Your task to perform on an android device: Clear all items from cart on bestbuy.com. Add "amazon basics triple a" to the cart on bestbuy.com, then select checkout. Image 0: 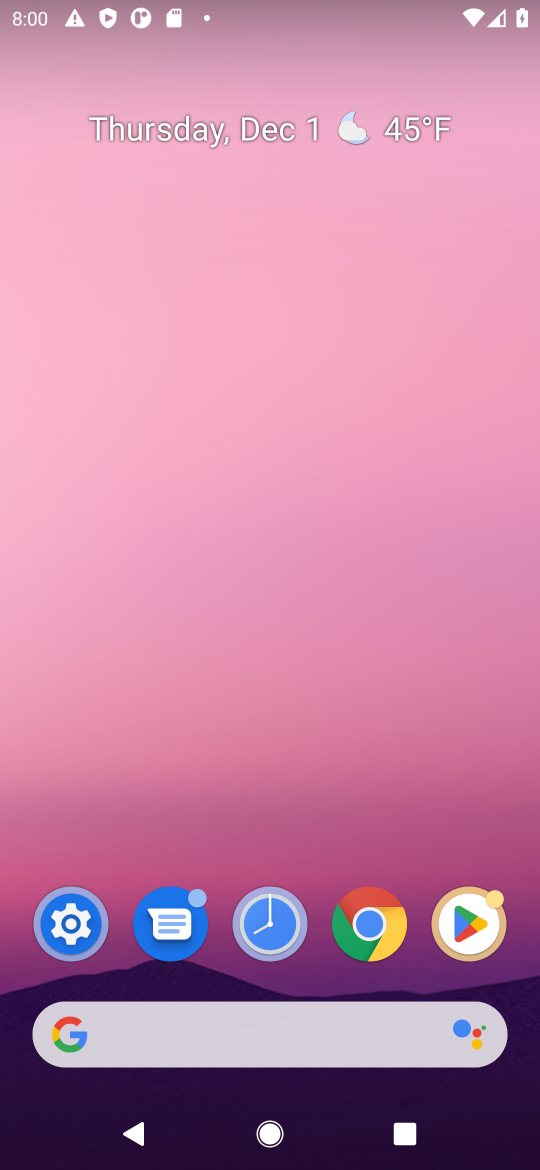
Step 0: click (290, 1018)
Your task to perform on an android device: Clear all items from cart on bestbuy.com. Add "amazon basics triple a" to the cart on bestbuy.com, then select checkout. Image 1: 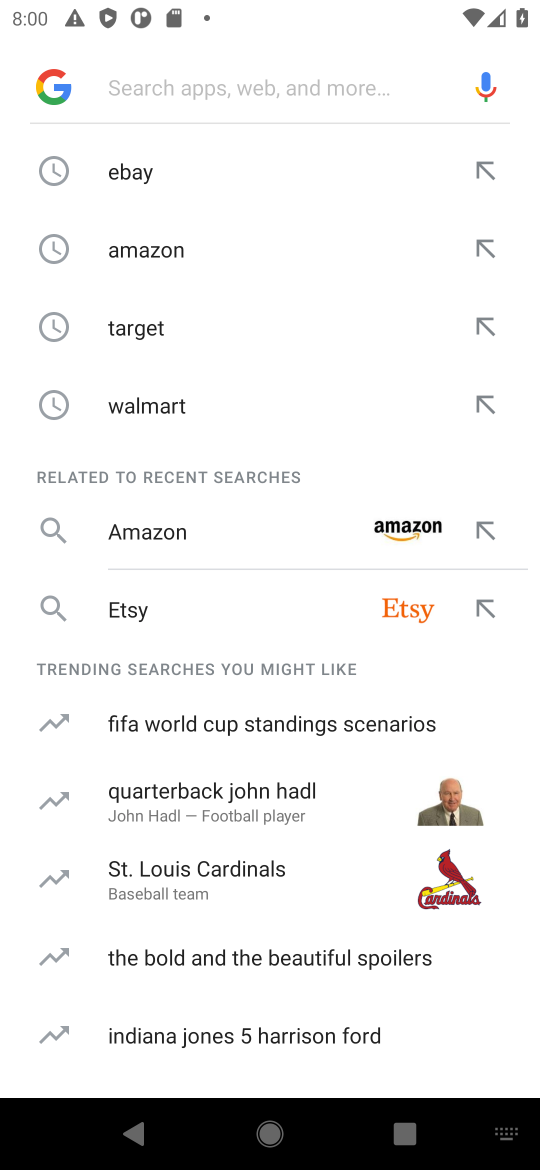
Step 1: type "bestbuy"
Your task to perform on an android device: Clear all items from cart on bestbuy.com. Add "amazon basics triple a" to the cart on bestbuy.com, then select checkout. Image 2: 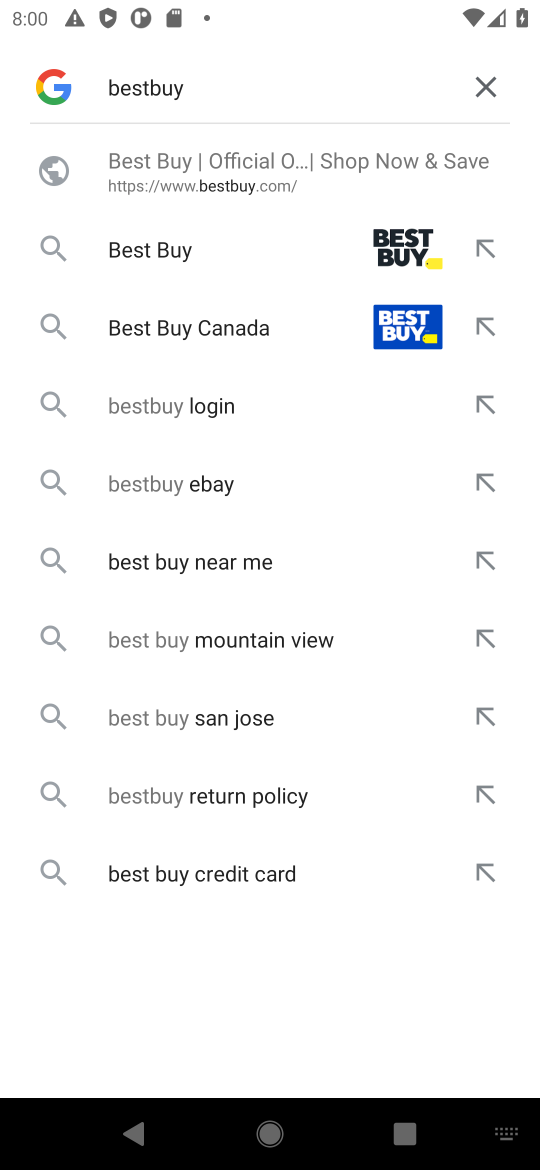
Step 2: click (234, 259)
Your task to perform on an android device: Clear all items from cart on bestbuy.com. Add "amazon basics triple a" to the cart on bestbuy.com, then select checkout. Image 3: 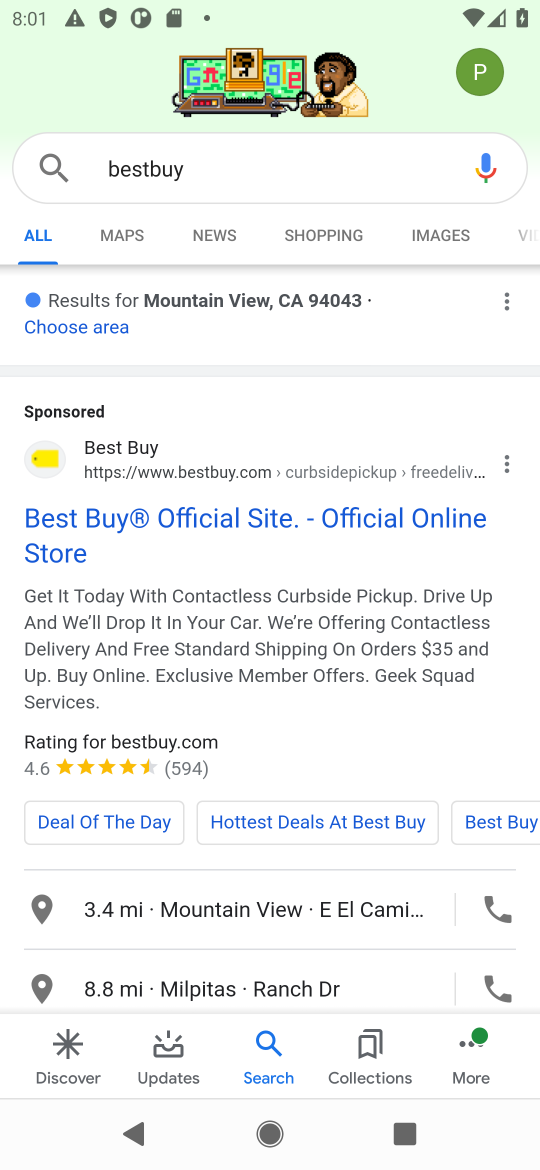
Step 3: click (104, 496)
Your task to perform on an android device: Clear all items from cart on bestbuy.com. Add "amazon basics triple a" to the cart on bestbuy.com, then select checkout. Image 4: 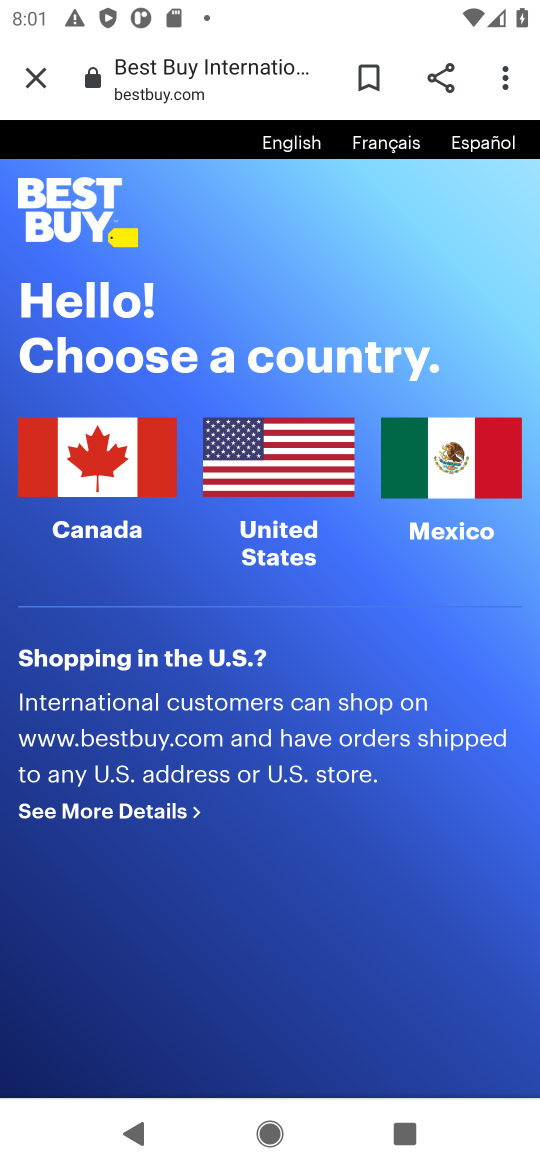
Step 4: click (100, 529)
Your task to perform on an android device: Clear all items from cart on bestbuy.com. Add "amazon basics triple a" to the cart on bestbuy.com, then select checkout. Image 5: 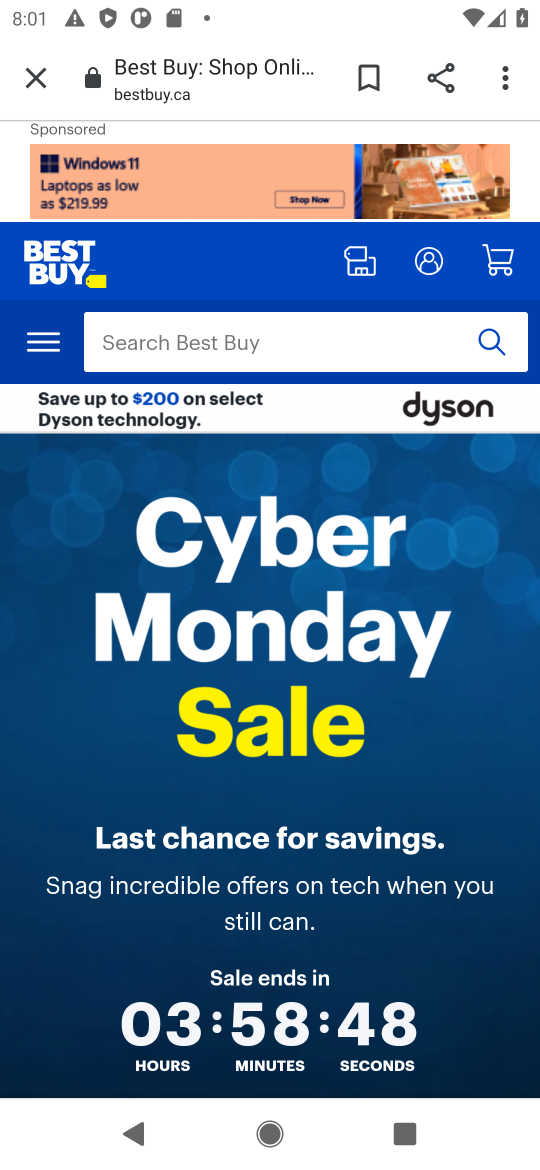
Step 5: click (218, 333)
Your task to perform on an android device: Clear all items from cart on bestbuy.com. Add "amazon basics triple a" to the cart on bestbuy.com, then select checkout. Image 6: 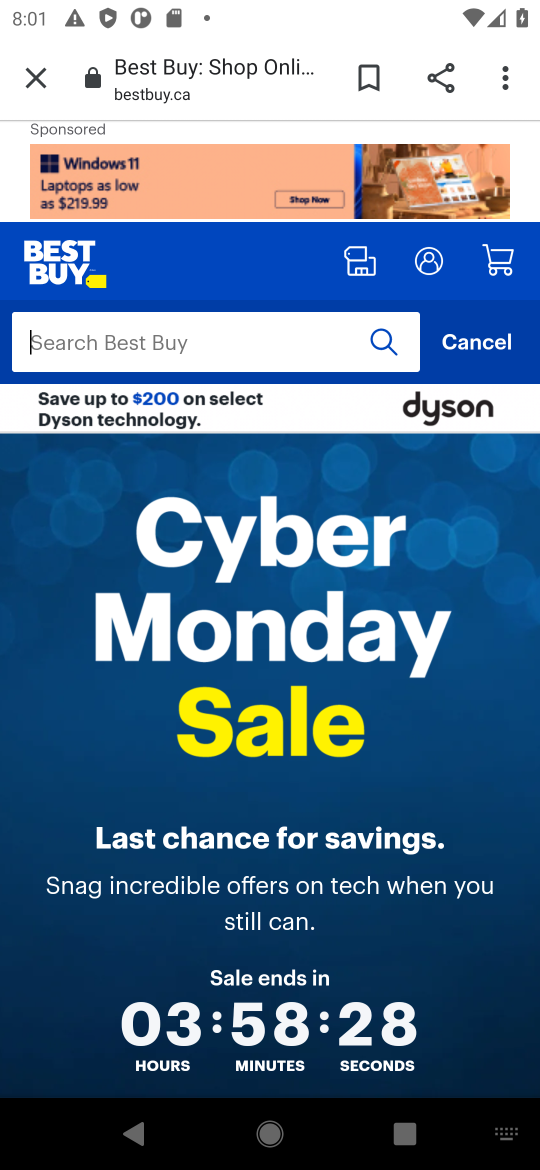
Step 6: type "amazon basic triple a"
Your task to perform on an android device: Clear all items from cart on bestbuy.com. Add "amazon basics triple a" to the cart on bestbuy.com, then select checkout. Image 7: 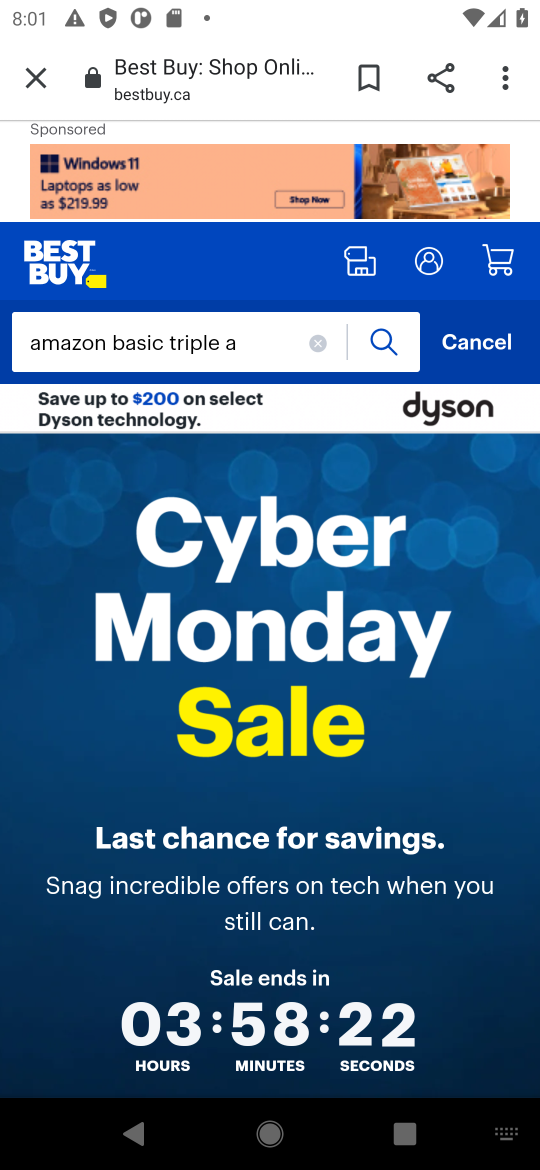
Step 7: click (374, 353)
Your task to perform on an android device: Clear all items from cart on bestbuy.com. Add "amazon basics triple a" to the cart on bestbuy.com, then select checkout. Image 8: 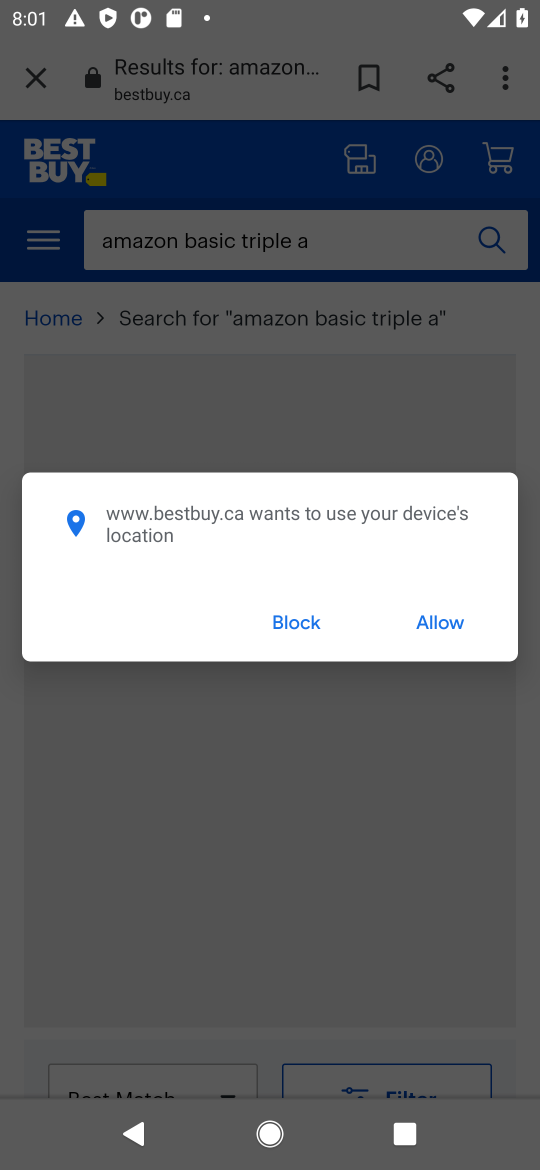
Step 8: click (438, 614)
Your task to perform on an android device: Clear all items from cart on bestbuy.com. Add "amazon basics triple a" to the cart on bestbuy.com, then select checkout. Image 9: 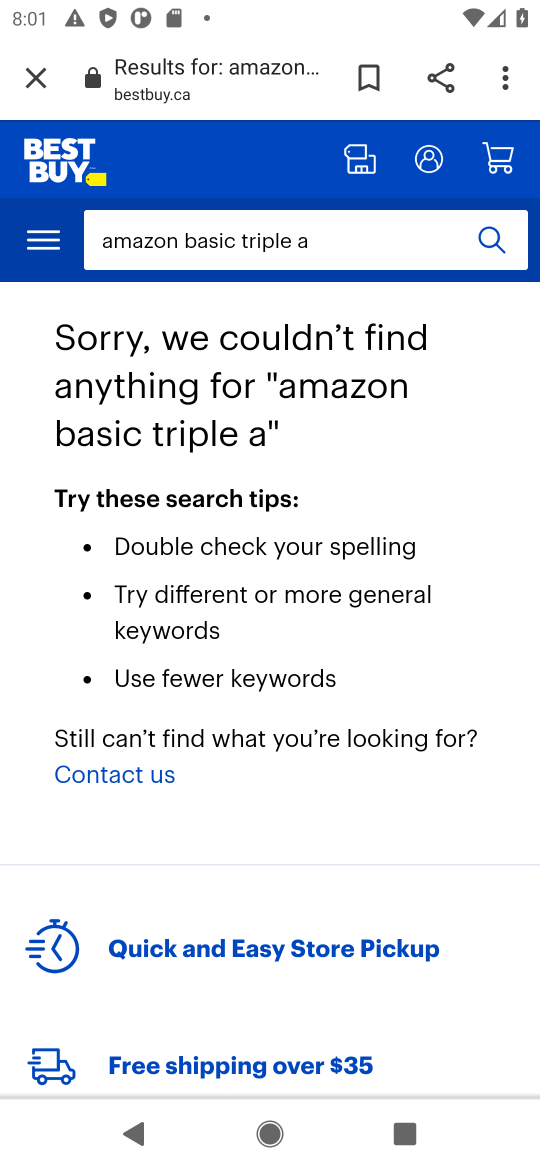
Step 9: task complete